Your task to perform on an android device: Open CNN.com Image 0: 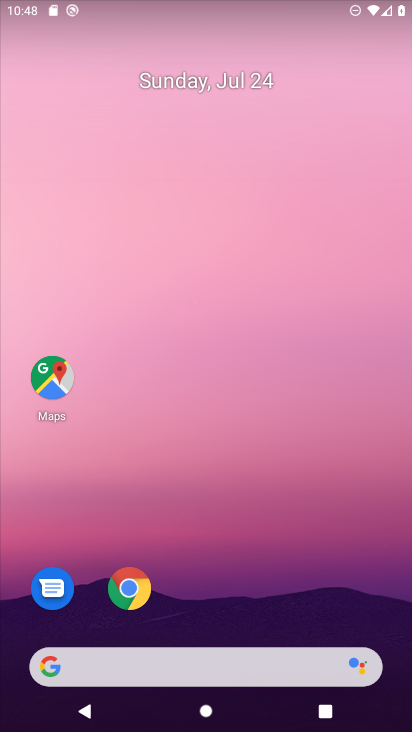
Step 0: click (139, 680)
Your task to perform on an android device: Open CNN.com Image 1: 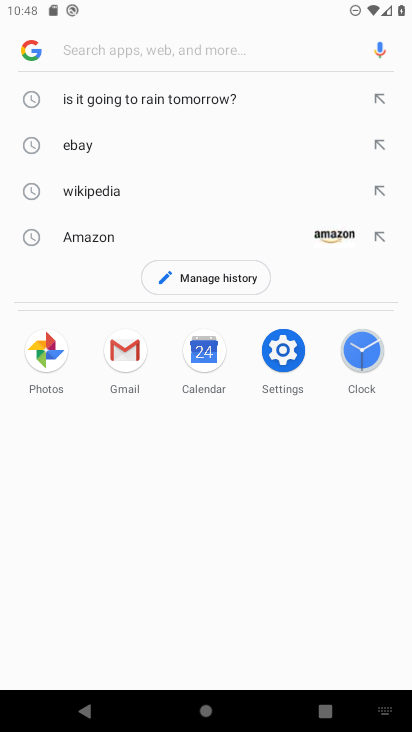
Step 1: type "cnn.com"
Your task to perform on an android device: Open CNN.com Image 2: 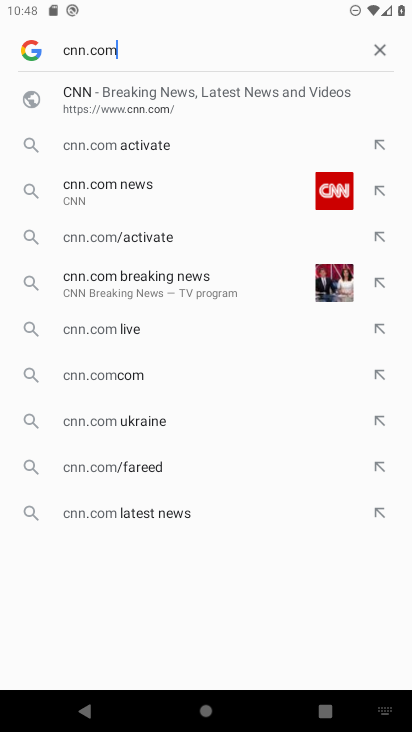
Step 2: click (207, 89)
Your task to perform on an android device: Open CNN.com Image 3: 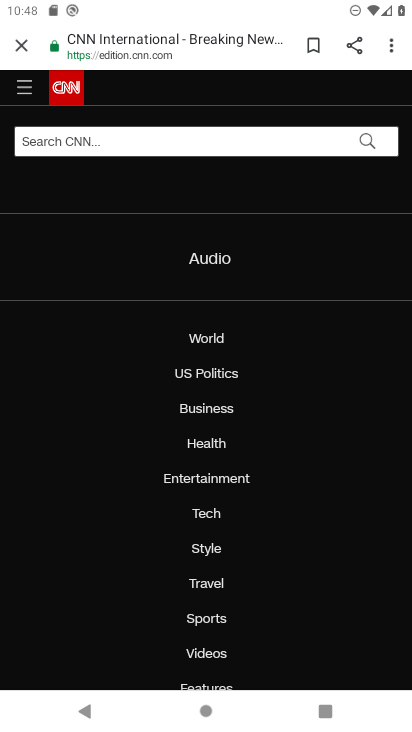
Step 3: task complete